Your task to perform on an android device: see tabs open on other devices in the chrome app Image 0: 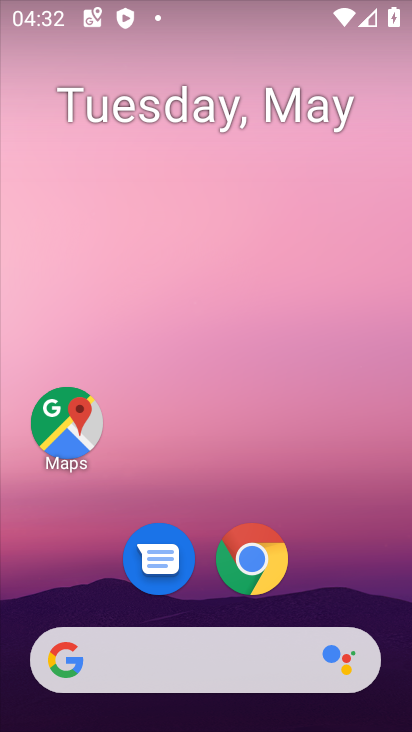
Step 0: click (276, 556)
Your task to perform on an android device: see tabs open on other devices in the chrome app Image 1: 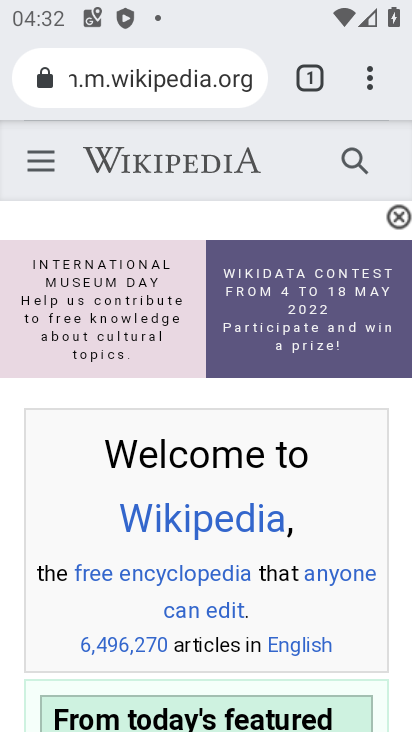
Step 1: click (373, 81)
Your task to perform on an android device: see tabs open on other devices in the chrome app Image 2: 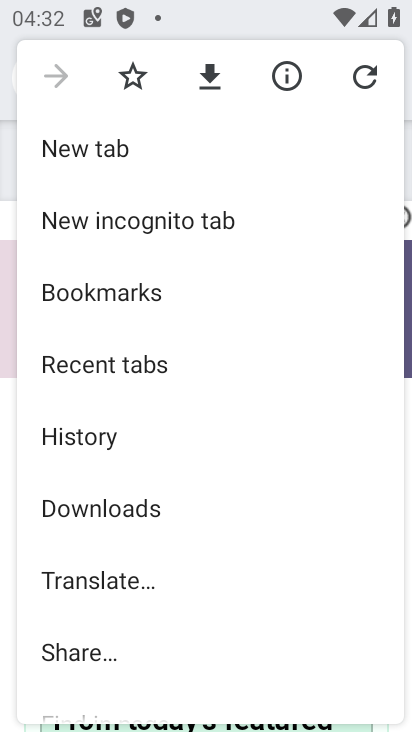
Step 2: click (132, 373)
Your task to perform on an android device: see tabs open on other devices in the chrome app Image 3: 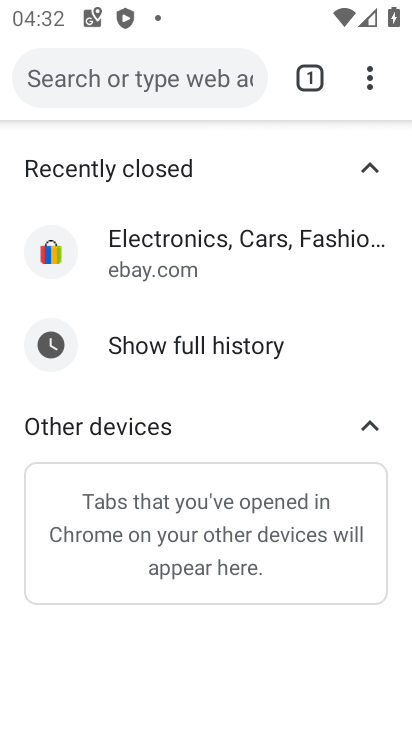
Step 3: task complete